Your task to perform on an android device: delete a single message in the gmail app Image 0: 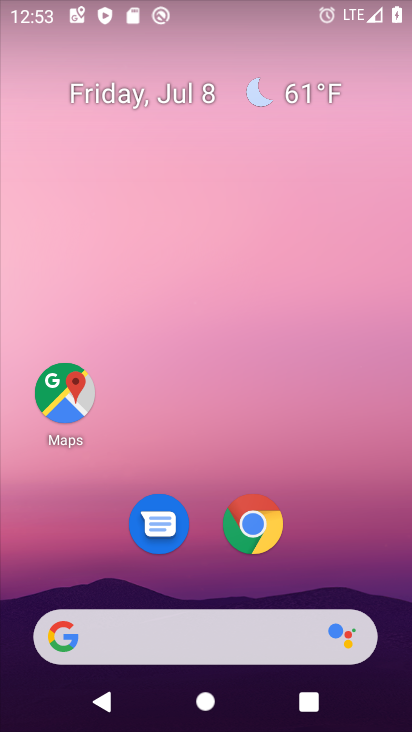
Step 0: drag from (310, 527) to (319, 173)
Your task to perform on an android device: delete a single message in the gmail app Image 1: 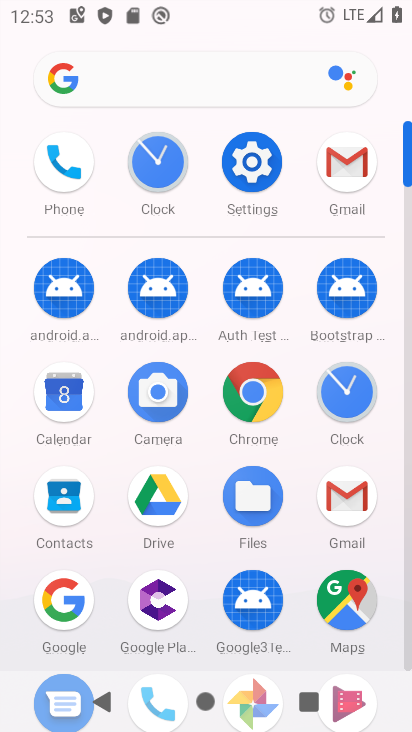
Step 1: click (368, 172)
Your task to perform on an android device: delete a single message in the gmail app Image 2: 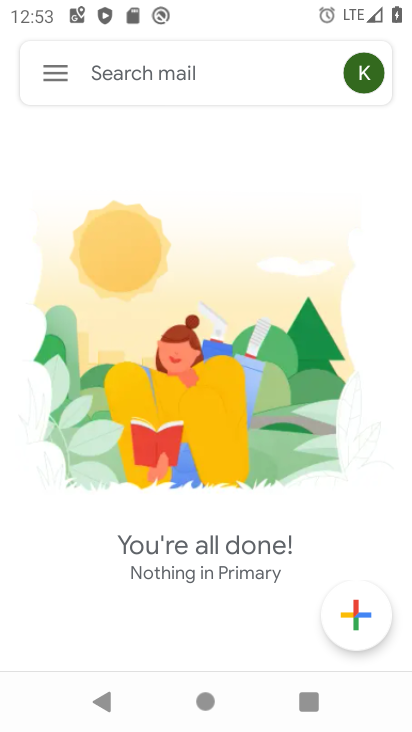
Step 2: click (54, 75)
Your task to perform on an android device: delete a single message in the gmail app Image 3: 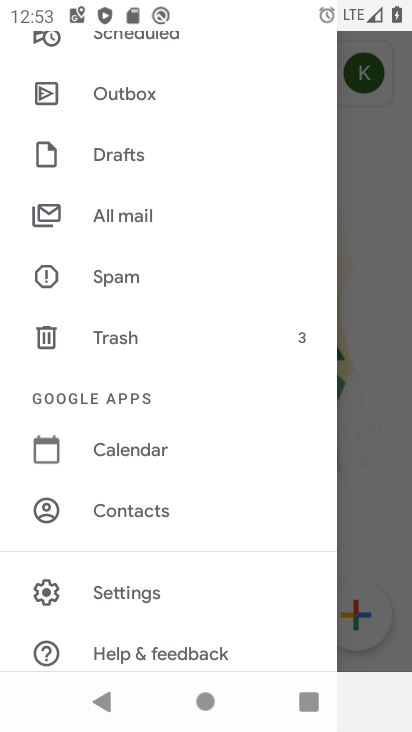
Step 3: click (124, 220)
Your task to perform on an android device: delete a single message in the gmail app Image 4: 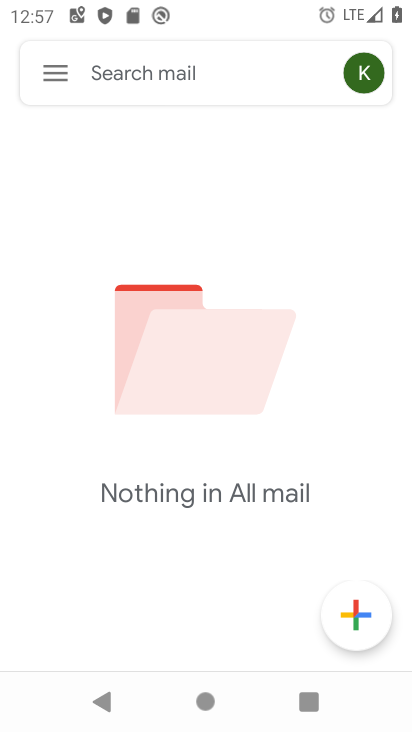
Step 4: task complete